Your task to perform on an android device: Go to Yahoo.com Image 0: 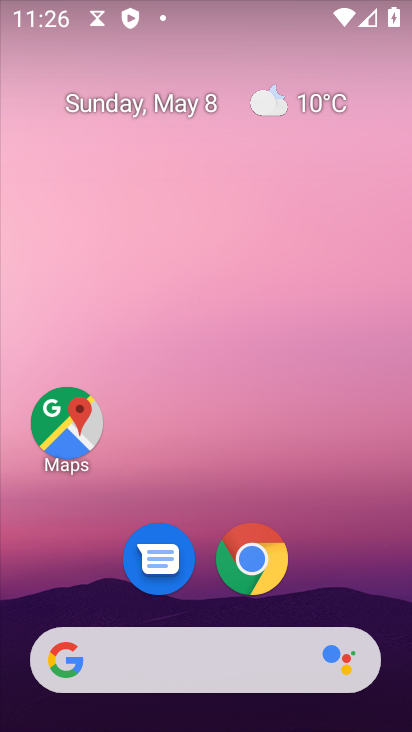
Step 0: click (245, 554)
Your task to perform on an android device: Go to Yahoo.com Image 1: 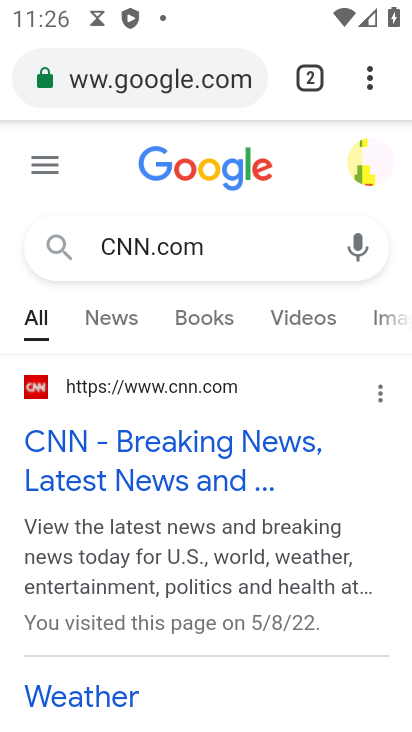
Step 1: click (143, 87)
Your task to perform on an android device: Go to Yahoo.com Image 2: 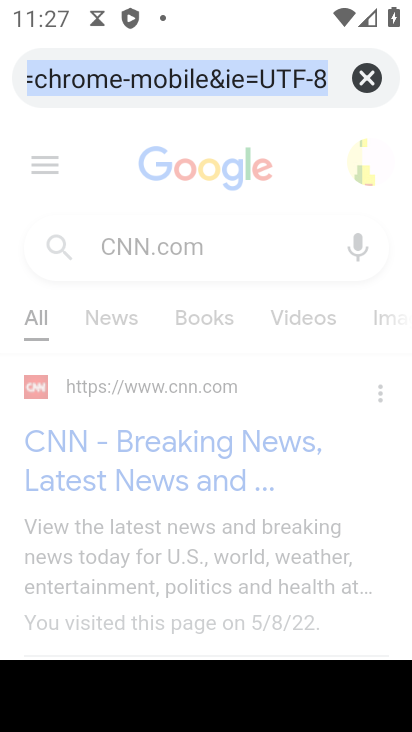
Step 2: type "yahoo.com"
Your task to perform on an android device: Go to Yahoo.com Image 3: 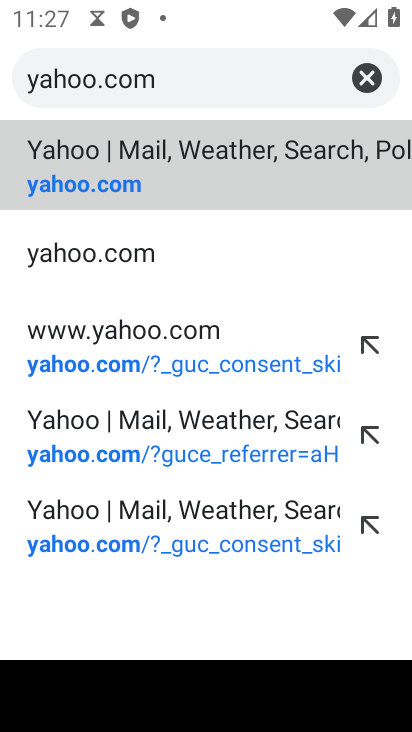
Step 3: click (117, 184)
Your task to perform on an android device: Go to Yahoo.com Image 4: 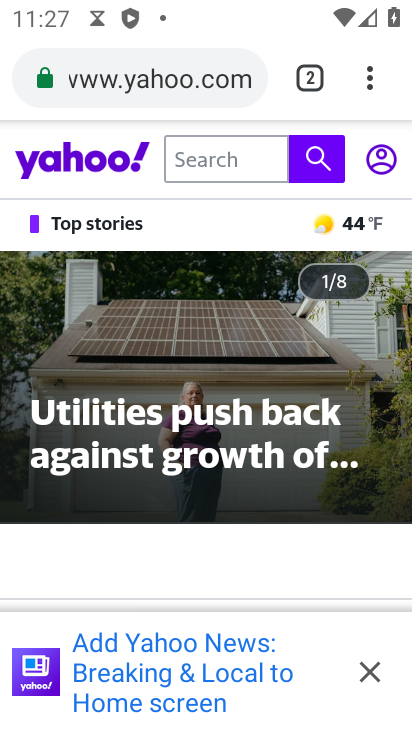
Step 4: task complete